Your task to perform on an android device: Open the map Image 0: 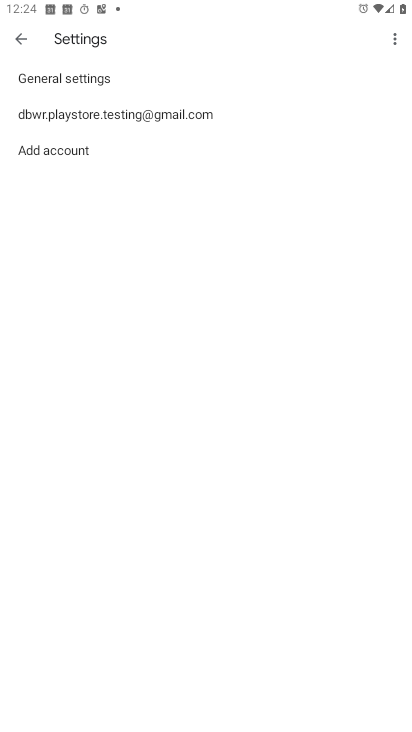
Step 0: press home button
Your task to perform on an android device: Open the map Image 1: 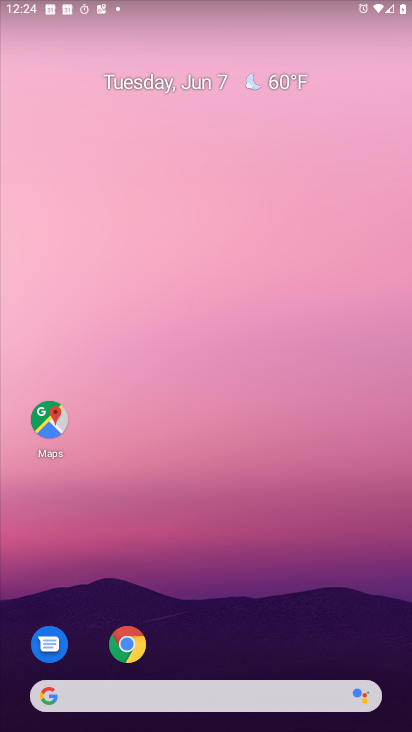
Step 1: click (45, 426)
Your task to perform on an android device: Open the map Image 2: 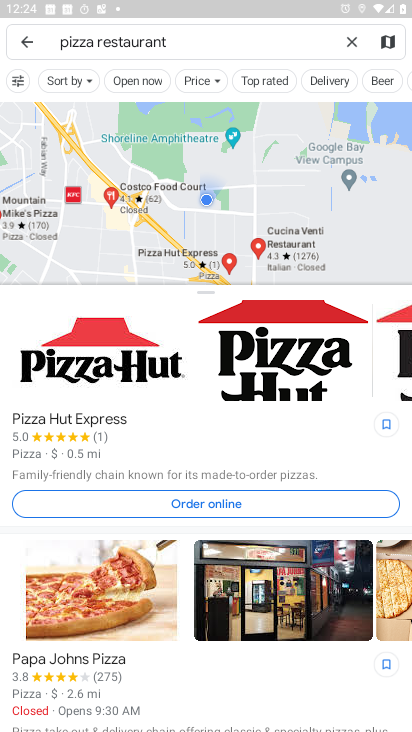
Step 2: task complete